Your task to perform on an android device: turn off sleep mode Image 0: 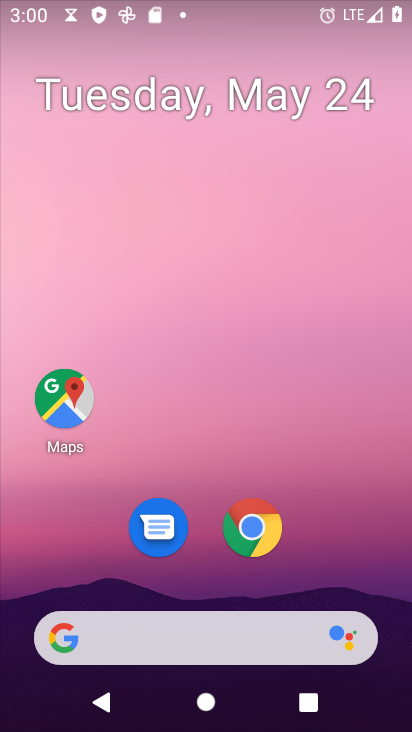
Step 0: press home button
Your task to perform on an android device: turn off sleep mode Image 1: 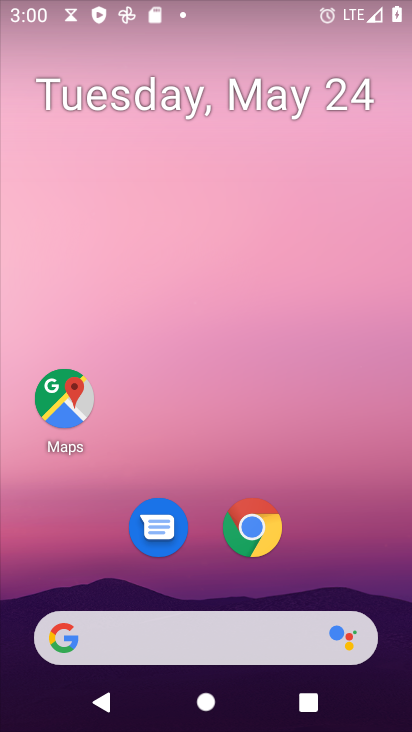
Step 1: drag from (228, 664) to (274, 116)
Your task to perform on an android device: turn off sleep mode Image 2: 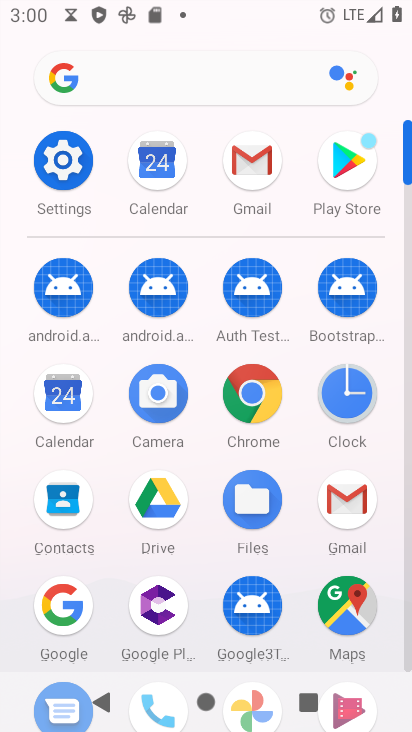
Step 2: click (70, 162)
Your task to perform on an android device: turn off sleep mode Image 3: 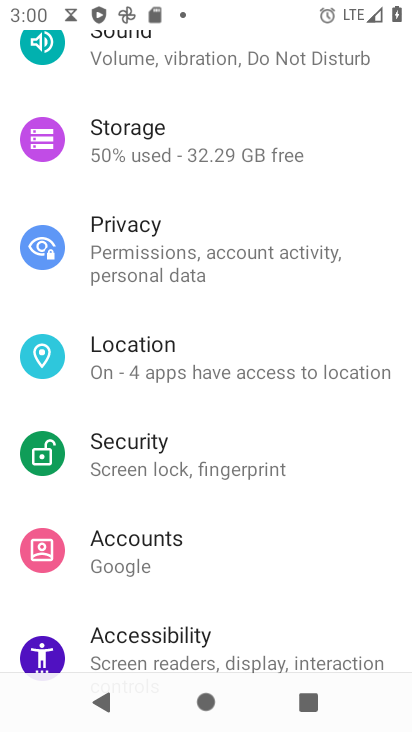
Step 3: drag from (308, 135) to (195, 521)
Your task to perform on an android device: turn off sleep mode Image 4: 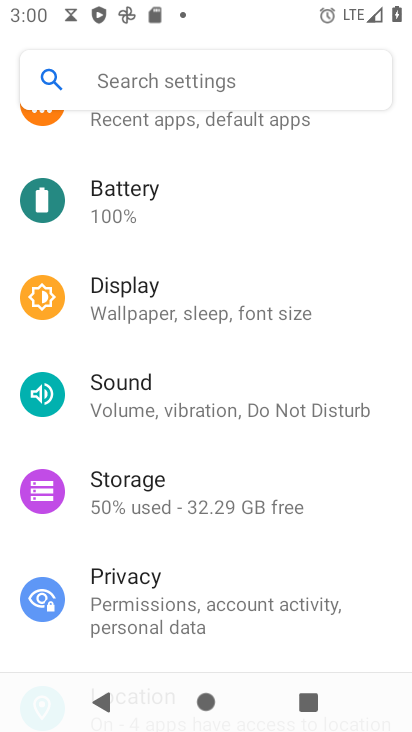
Step 4: click (162, 312)
Your task to perform on an android device: turn off sleep mode Image 5: 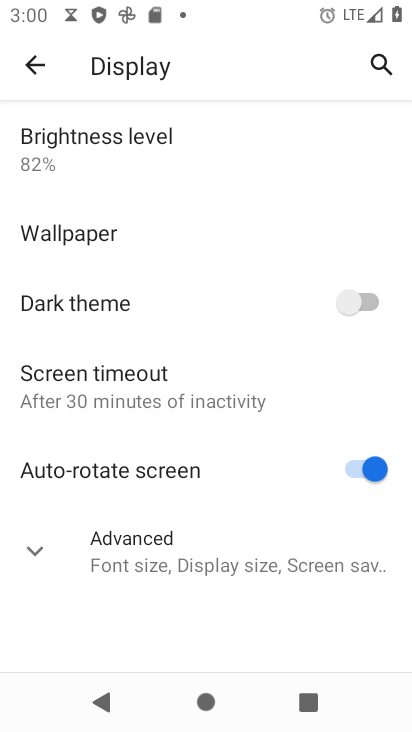
Step 5: task complete